Your task to perform on an android device: Clear the shopping cart on costco.com. Add "logitech g502" to the cart on costco.com, then select checkout. Image 0: 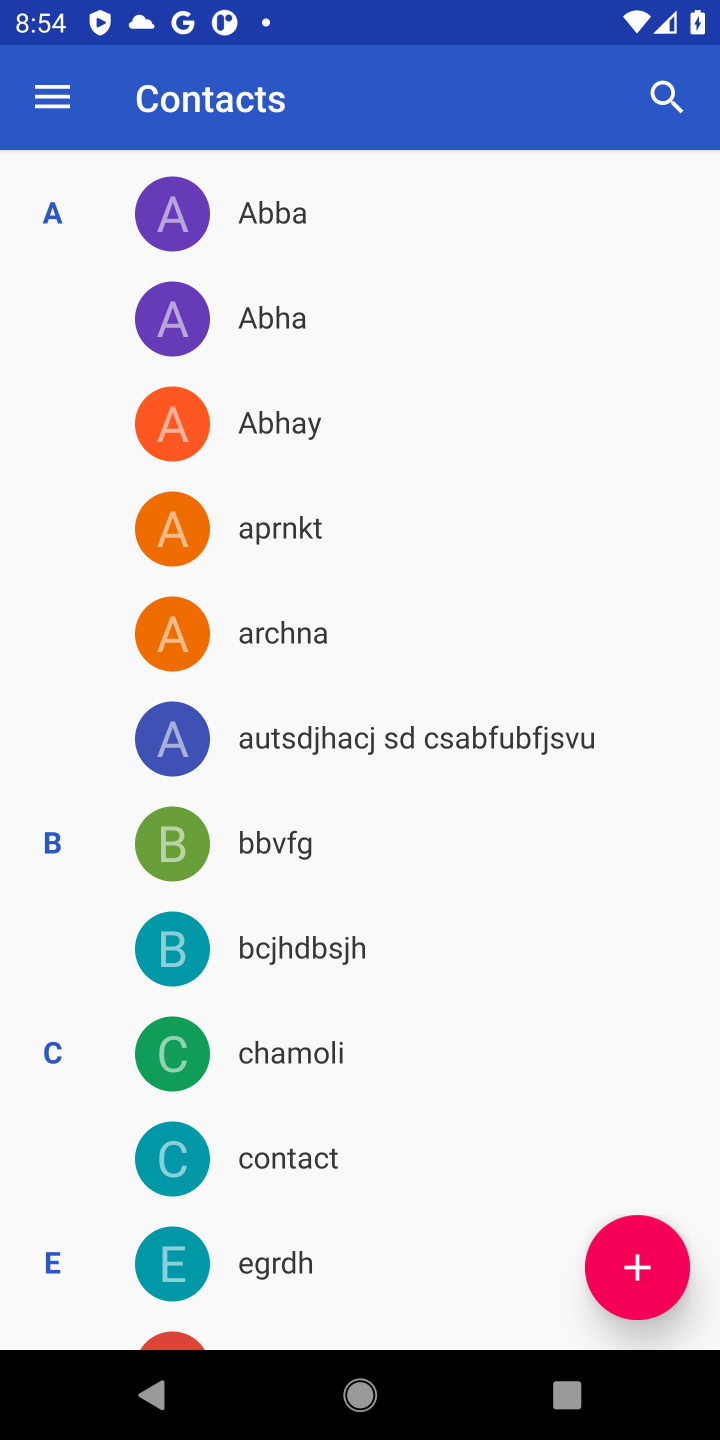
Step 0: press home button
Your task to perform on an android device: Clear the shopping cart on costco.com. Add "logitech g502" to the cart on costco.com, then select checkout. Image 1: 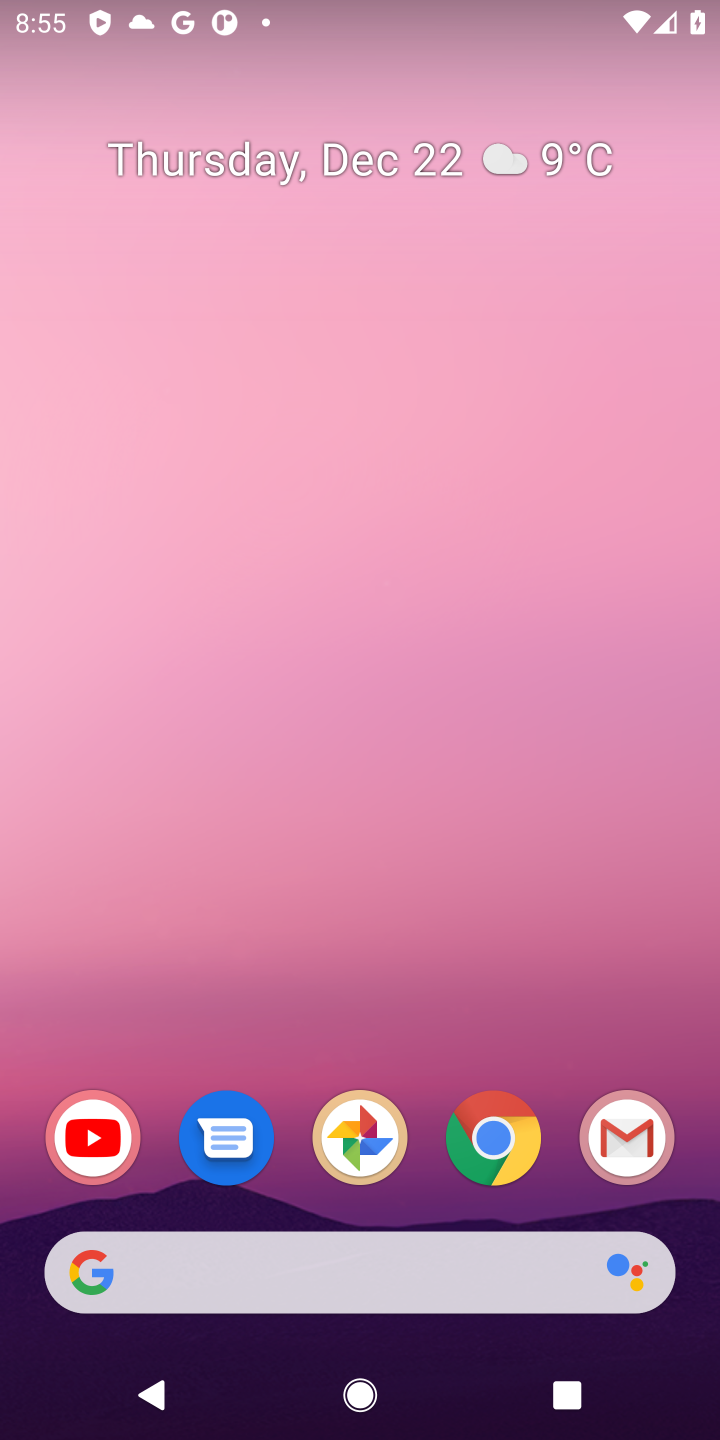
Step 1: click (502, 1150)
Your task to perform on an android device: Clear the shopping cart on costco.com. Add "logitech g502" to the cart on costco.com, then select checkout. Image 2: 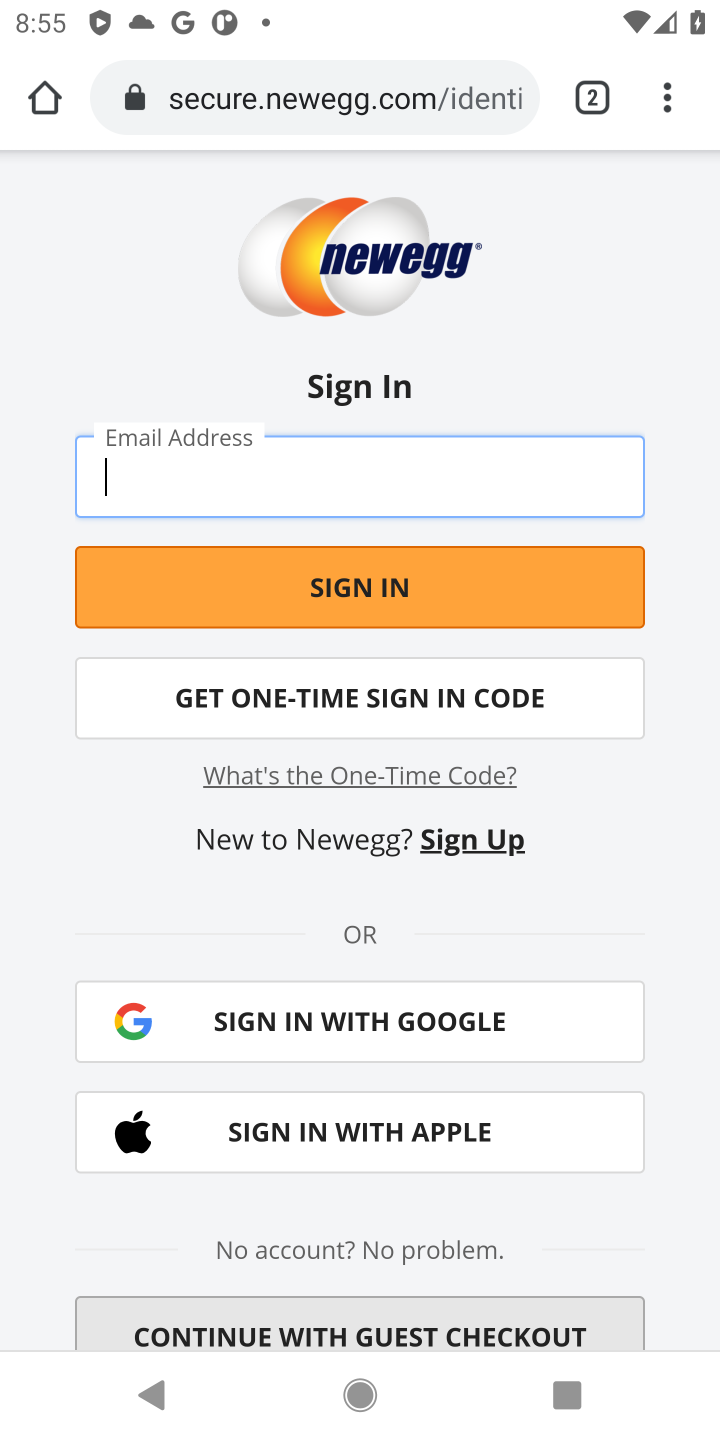
Step 2: click (235, 97)
Your task to perform on an android device: Clear the shopping cart on costco.com. Add "logitech g502" to the cart on costco.com, then select checkout. Image 3: 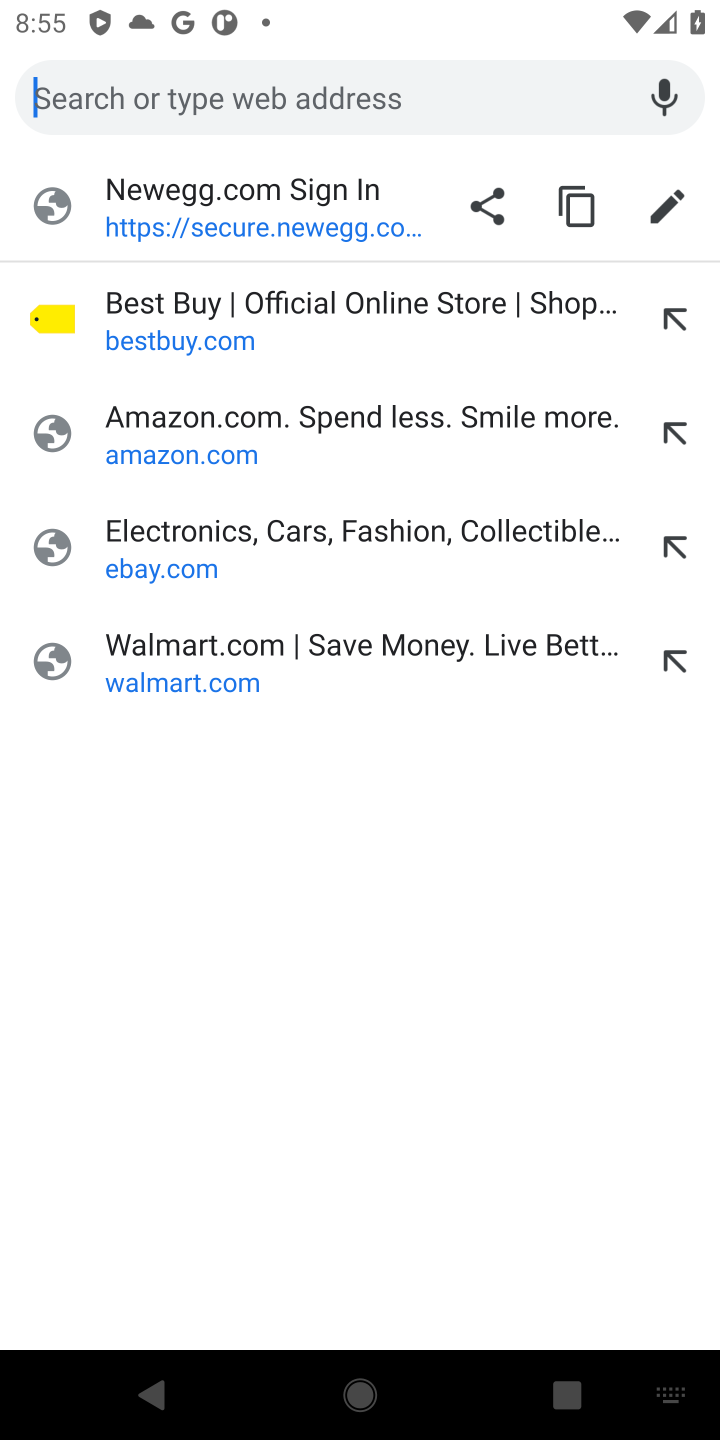
Step 3: type "costco.com"
Your task to perform on an android device: Clear the shopping cart on costco.com. Add "logitech g502" to the cart on costco.com, then select checkout. Image 4: 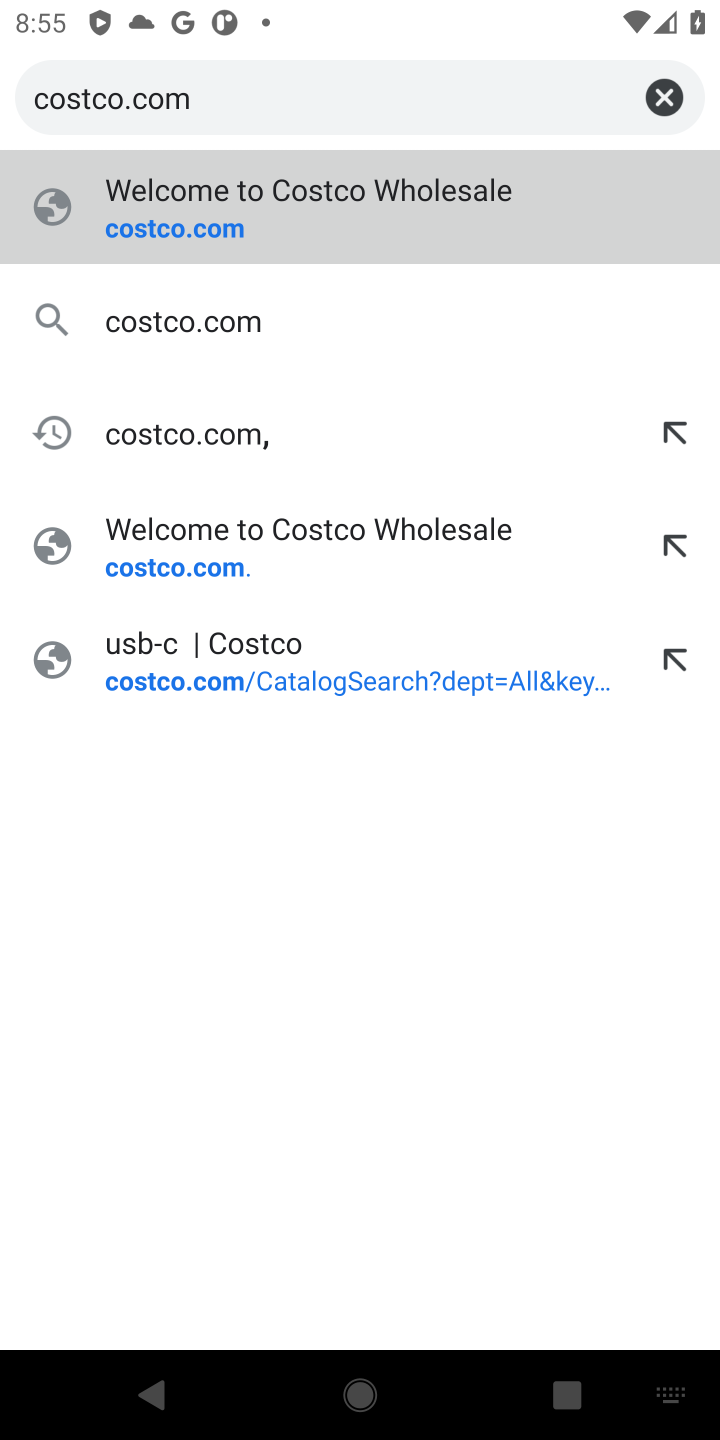
Step 4: click (296, 218)
Your task to perform on an android device: Clear the shopping cart on costco.com. Add "logitech g502" to the cart on costco.com, then select checkout. Image 5: 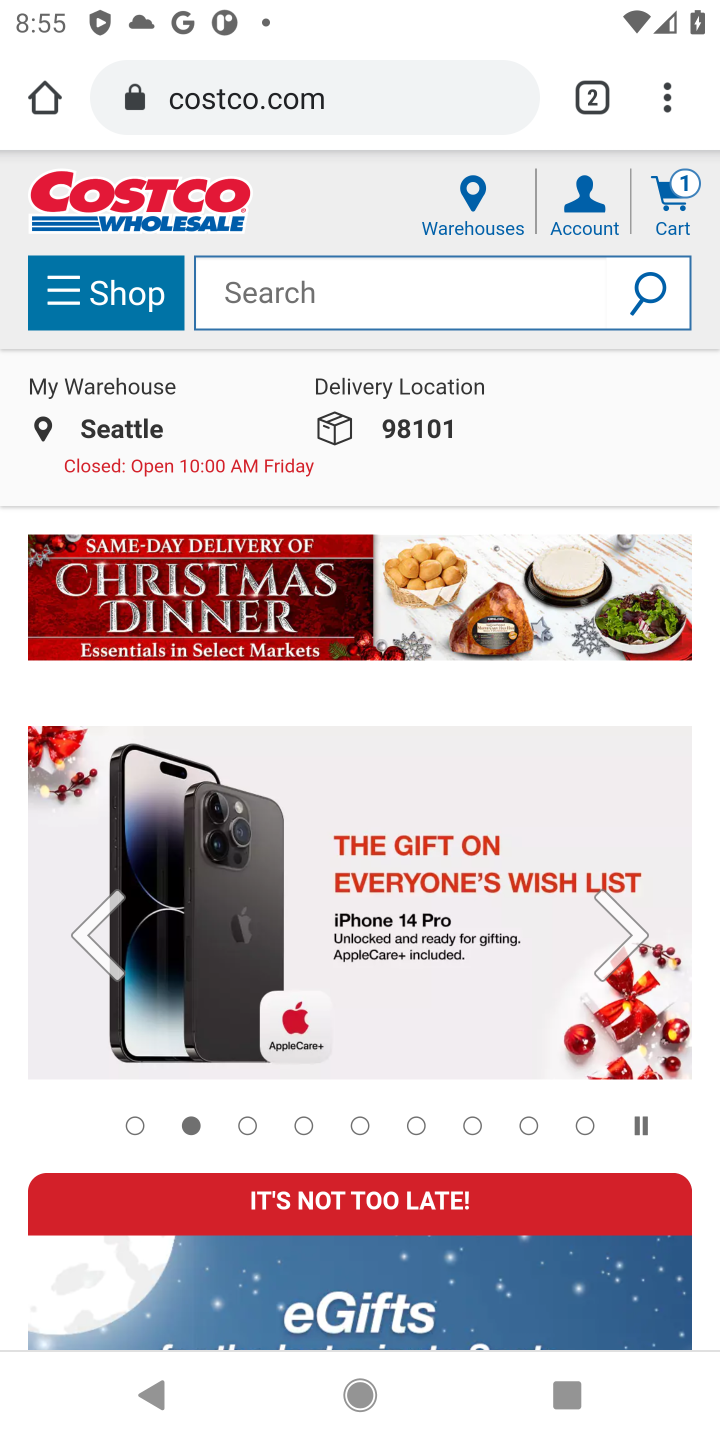
Step 5: click (682, 203)
Your task to perform on an android device: Clear the shopping cart on costco.com. Add "logitech g502" to the cart on costco.com, then select checkout. Image 6: 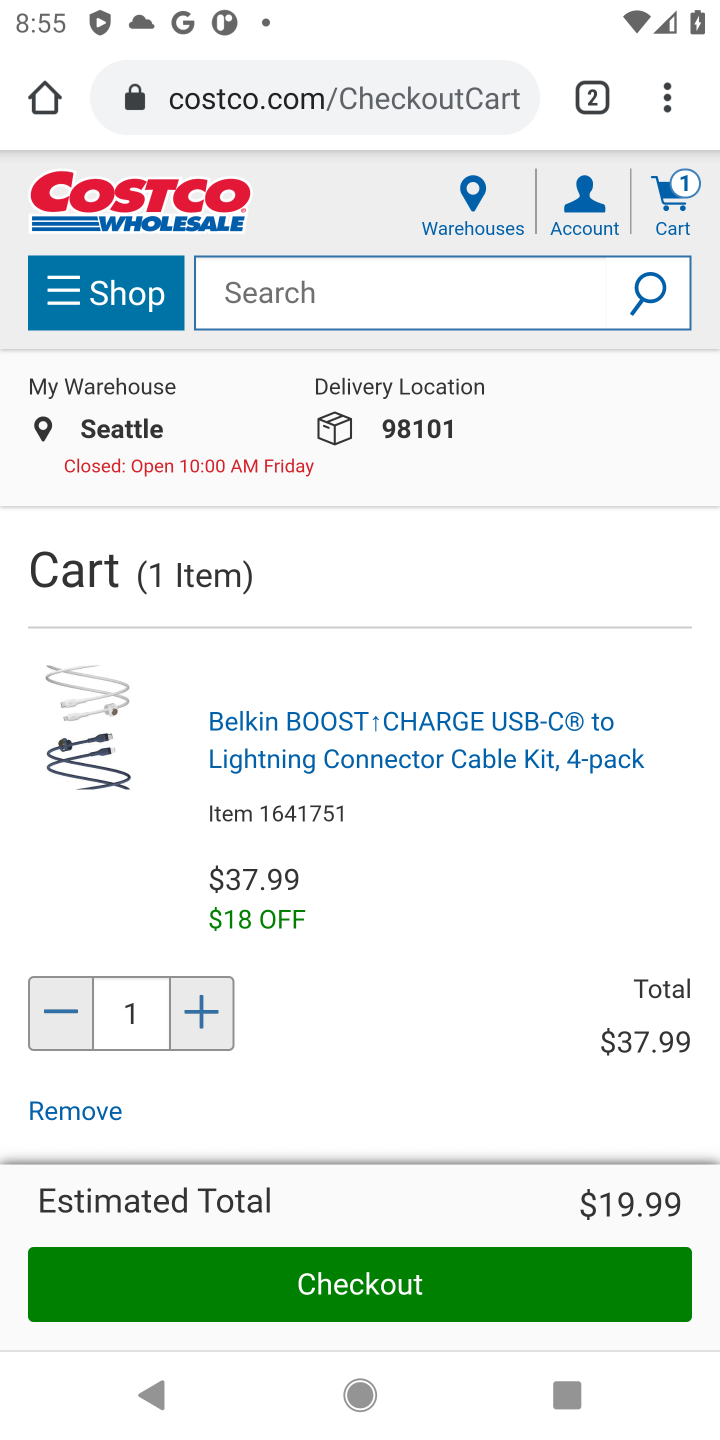
Step 6: click (83, 1117)
Your task to perform on an android device: Clear the shopping cart on costco.com. Add "logitech g502" to the cart on costco.com, then select checkout. Image 7: 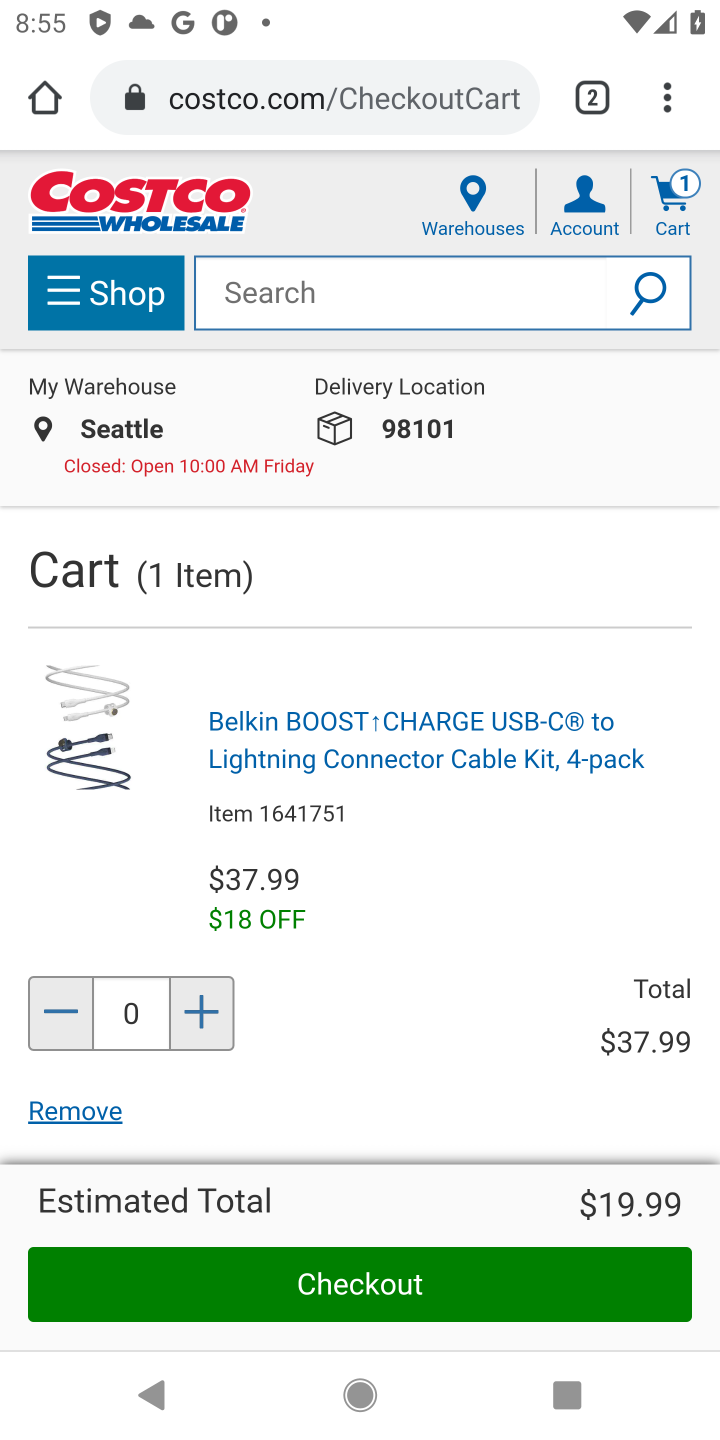
Step 7: click (79, 1121)
Your task to perform on an android device: Clear the shopping cart on costco.com. Add "logitech g502" to the cart on costco.com, then select checkout. Image 8: 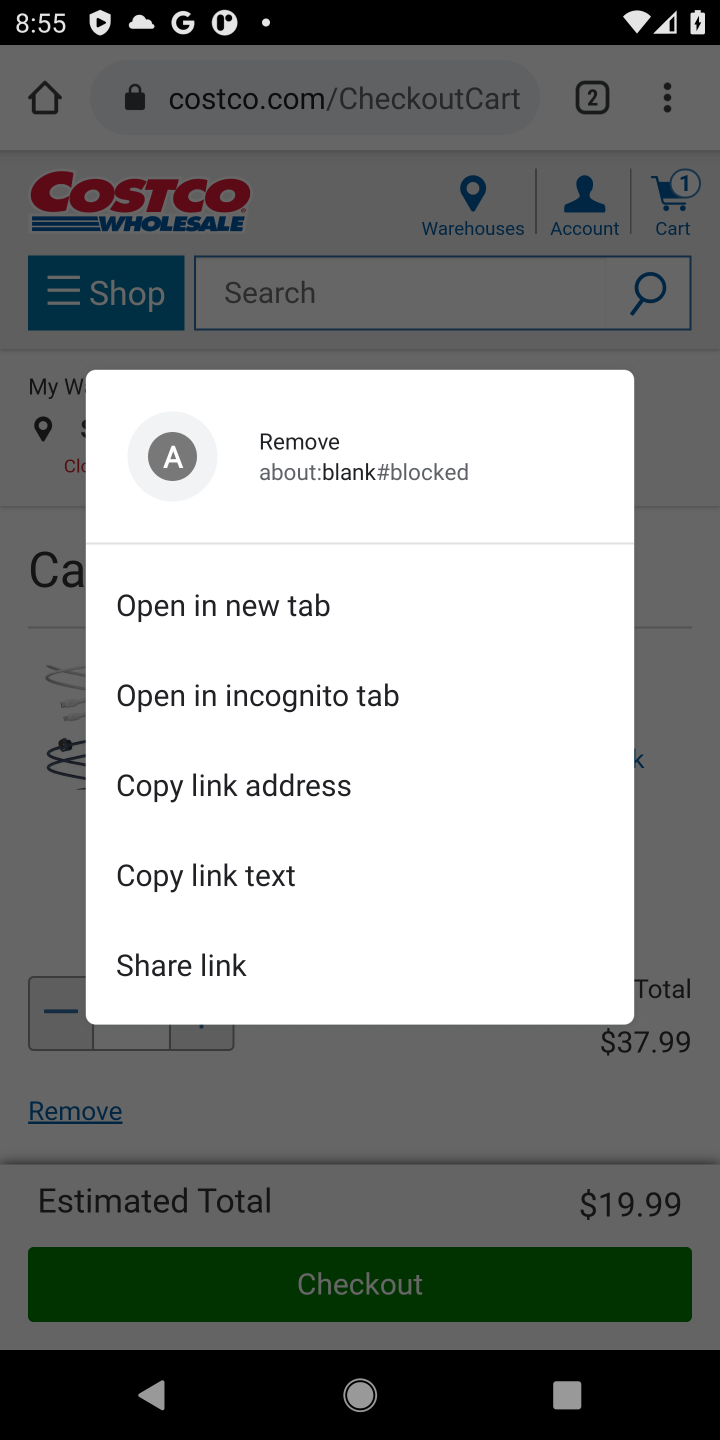
Step 8: click (260, 1091)
Your task to perform on an android device: Clear the shopping cart on costco.com. Add "logitech g502" to the cart on costco.com, then select checkout. Image 9: 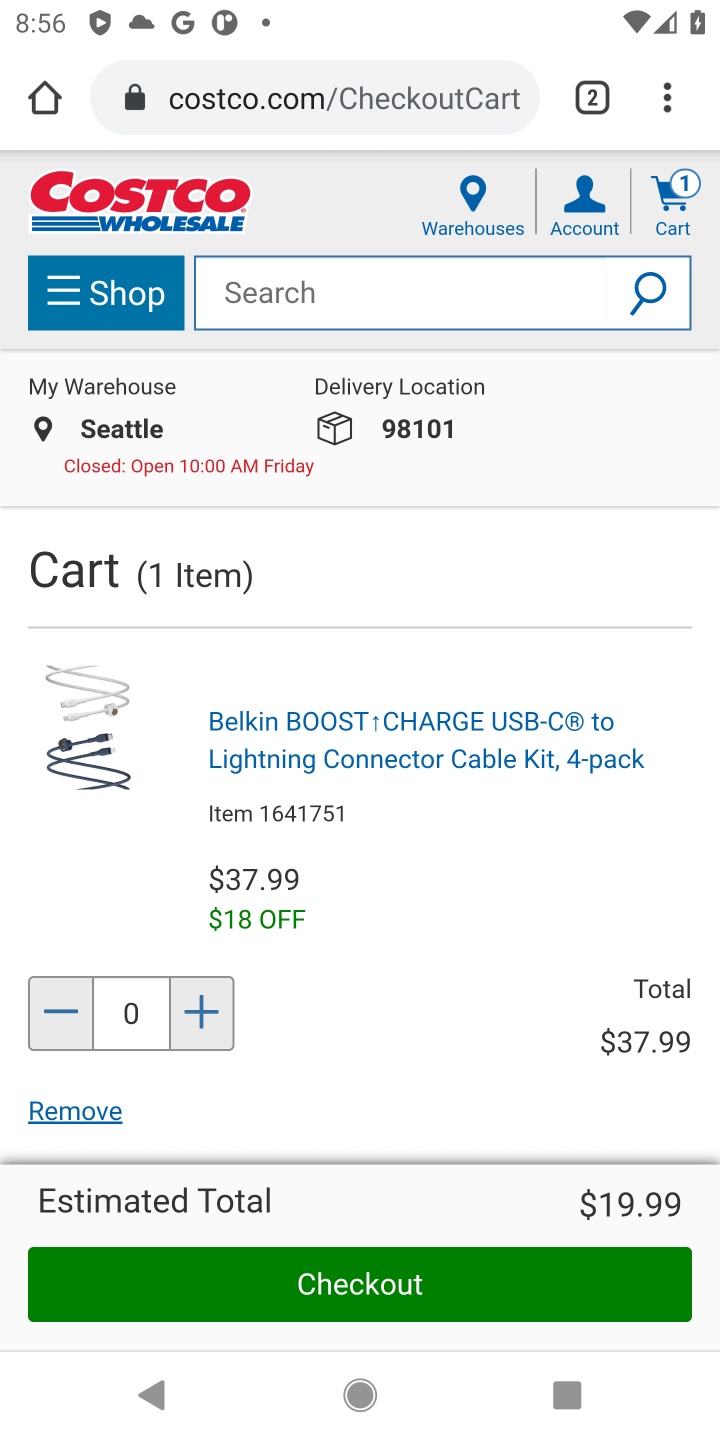
Step 9: task complete